Your task to perform on an android device: turn off smart reply in the gmail app Image 0: 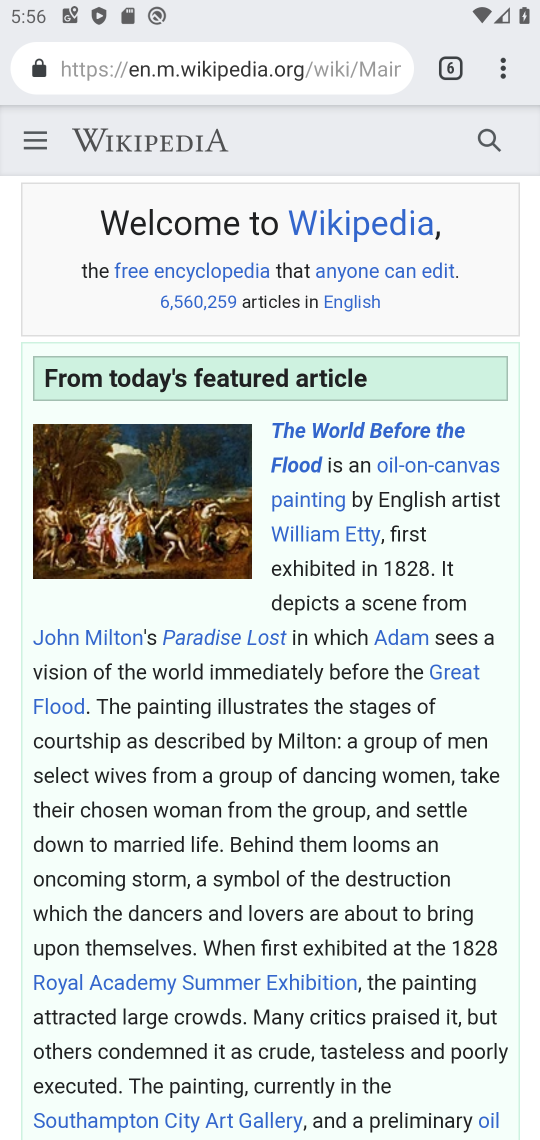
Step 0: press home button
Your task to perform on an android device: turn off smart reply in the gmail app Image 1: 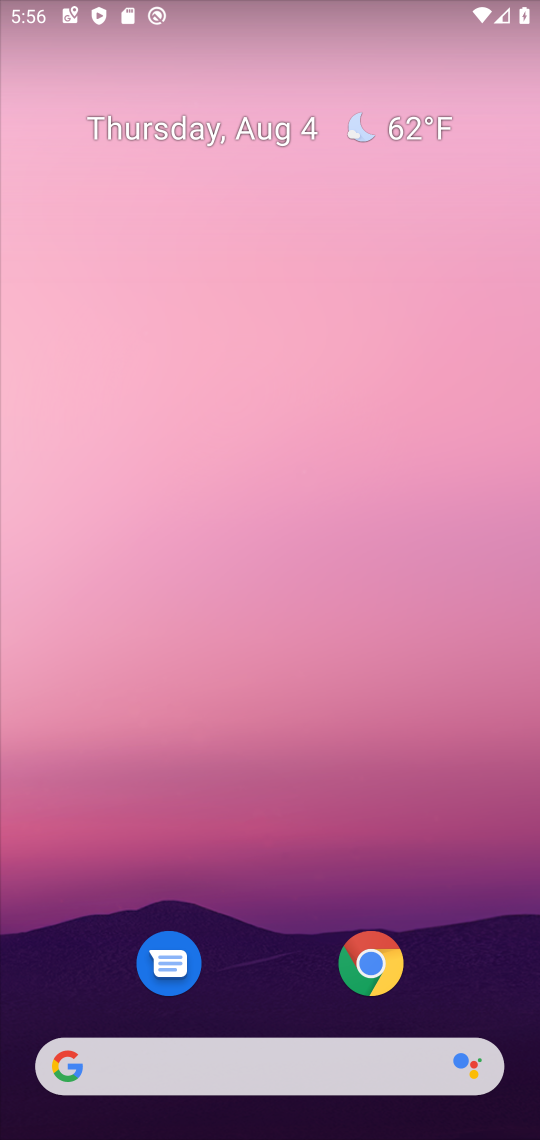
Step 1: drag from (294, 886) to (244, 140)
Your task to perform on an android device: turn off smart reply in the gmail app Image 2: 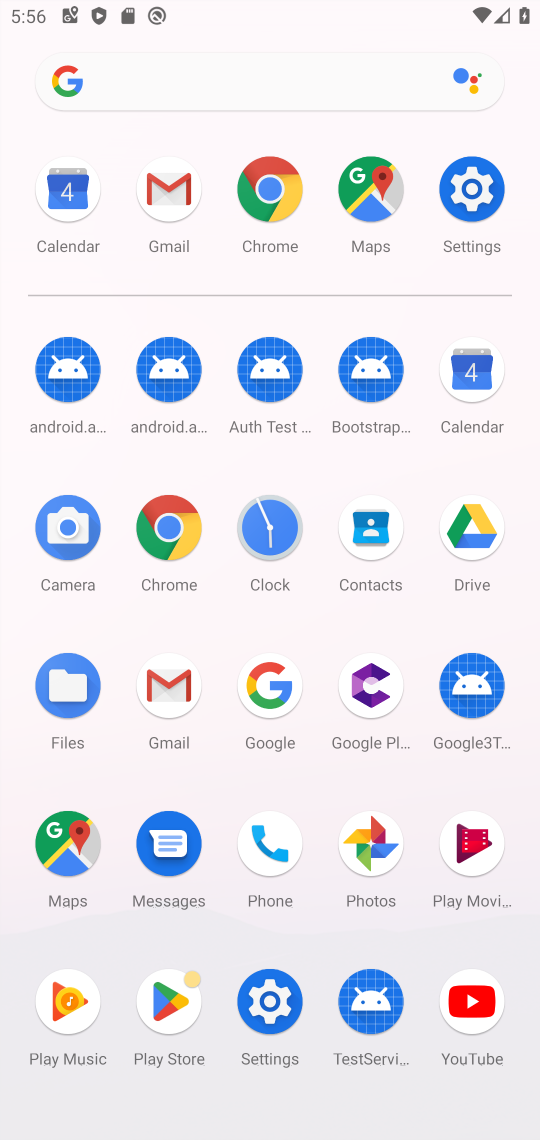
Step 2: click (175, 191)
Your task to perform on an android device: turn off smart reply in the gmail app Image 3: 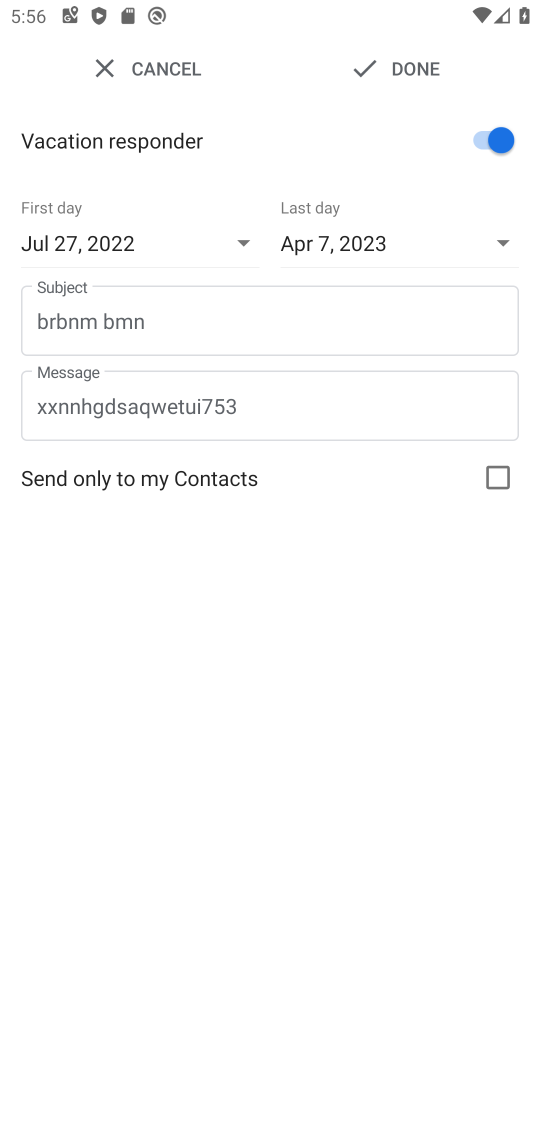
Step 3: click (103, 60)
Your task to perform on an android device: turn off smart reply in the gmail app Image 4: 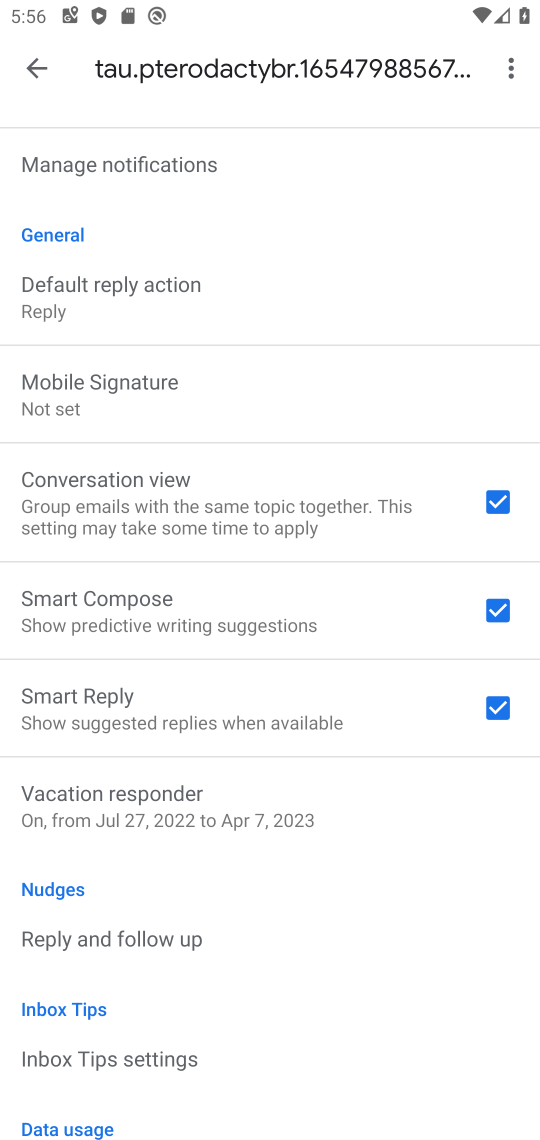
Step 4: click (496, 708)
Your task to perform on an android device: turn off smart reply in the gmail app Image 5: 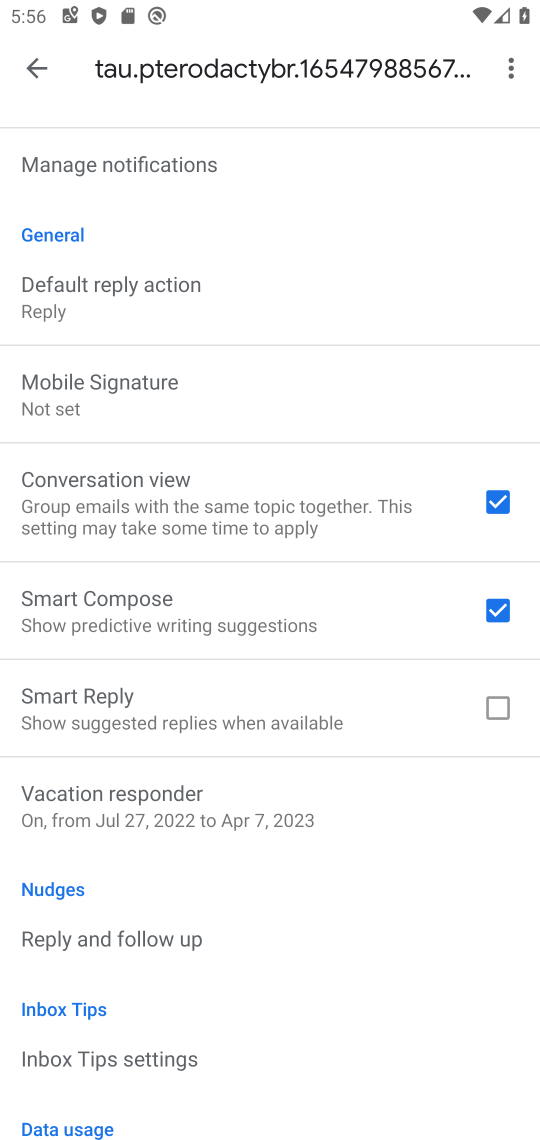
Step 5: task complete